Your task to perform on an android device: Go to wifi settings Image 0: 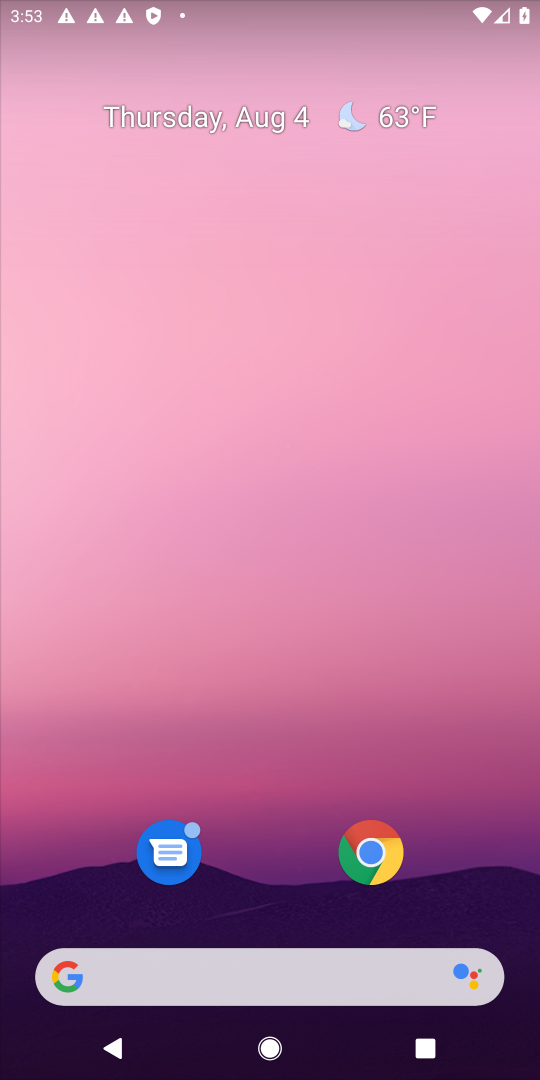
Step 0: drag from (271, 937) to (233, 85)
Your task to perform on an android device: Go to wifi settings Image 1: 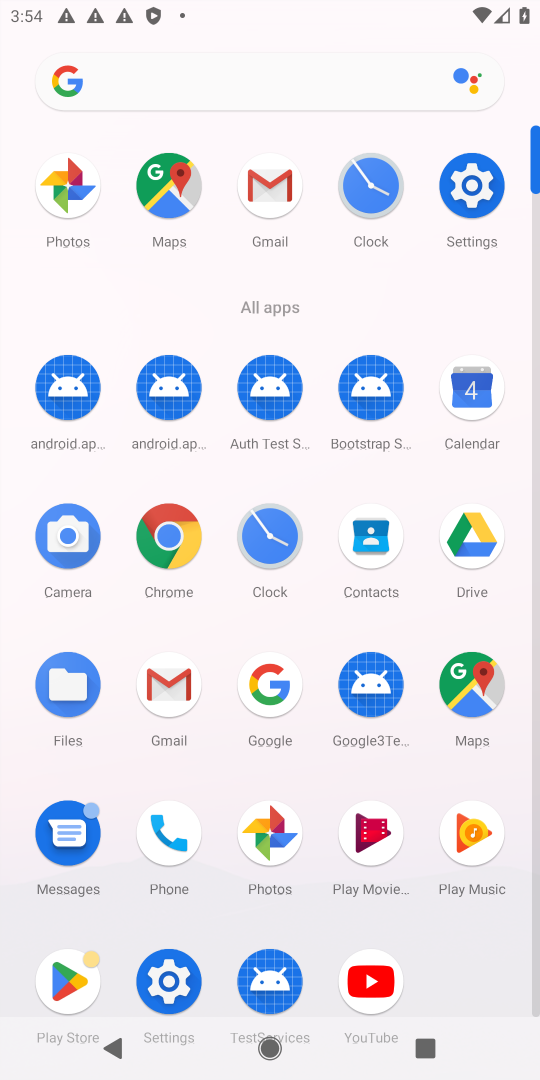
Step 1: click (482, 209)
Your task to perform on an android device: Go to wifi settings Image 2: 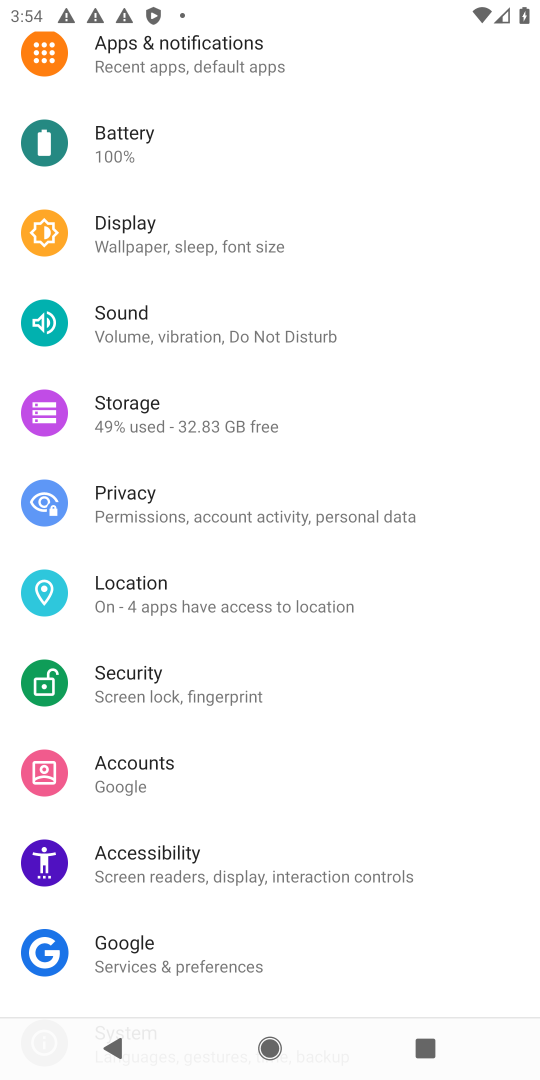
Step 2: drag from (185, 210) to (199, 727)
Your task to perform on an android device: Go to wifi settings Image 3: 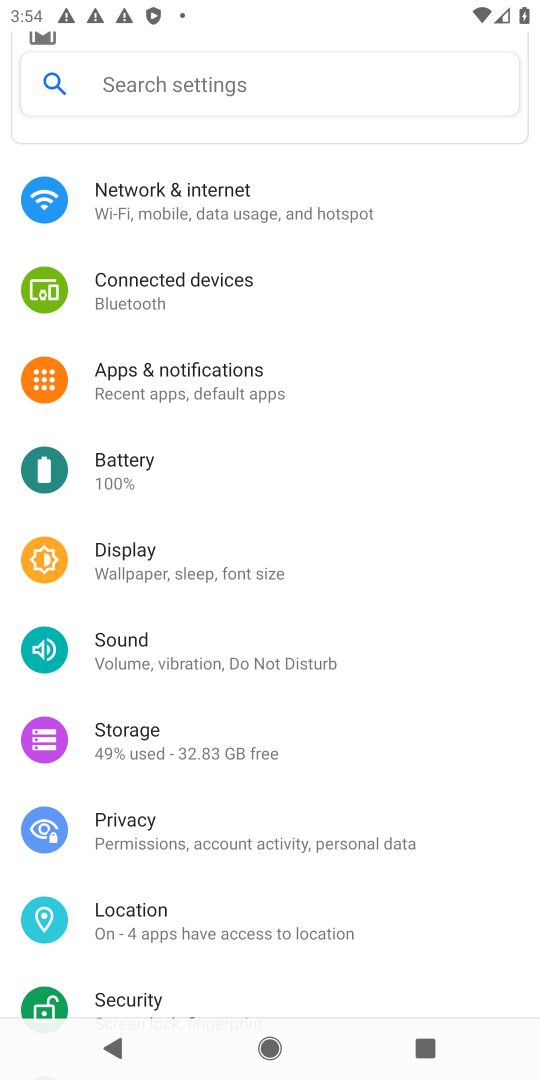
Step 3: click (178, 220)
Your task to perform on an android device: Go to wifi settings Image 4: 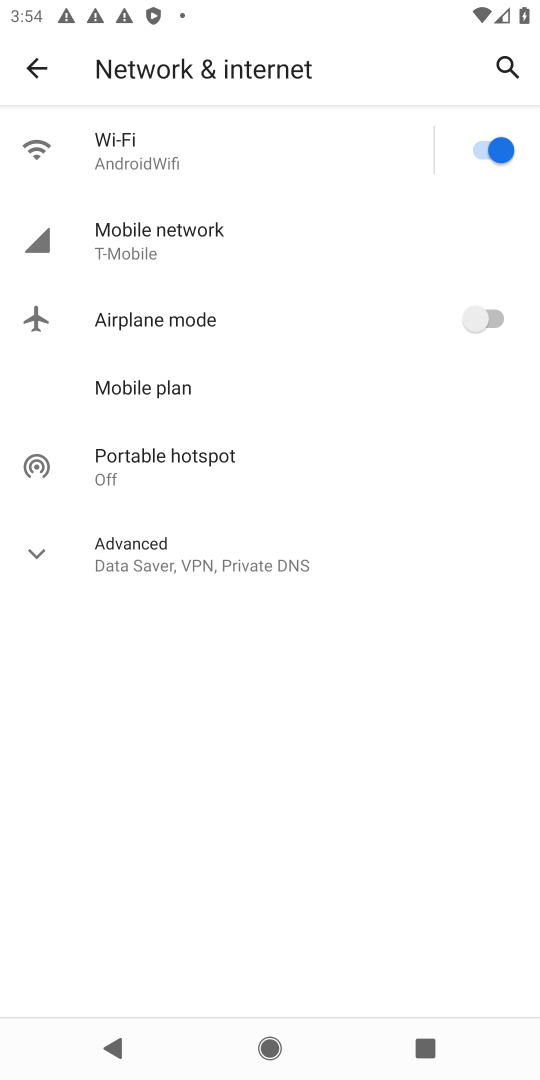
Step 4: click (134, 143)
Your task to perform on an android device: Go to wifi settings Image 5: 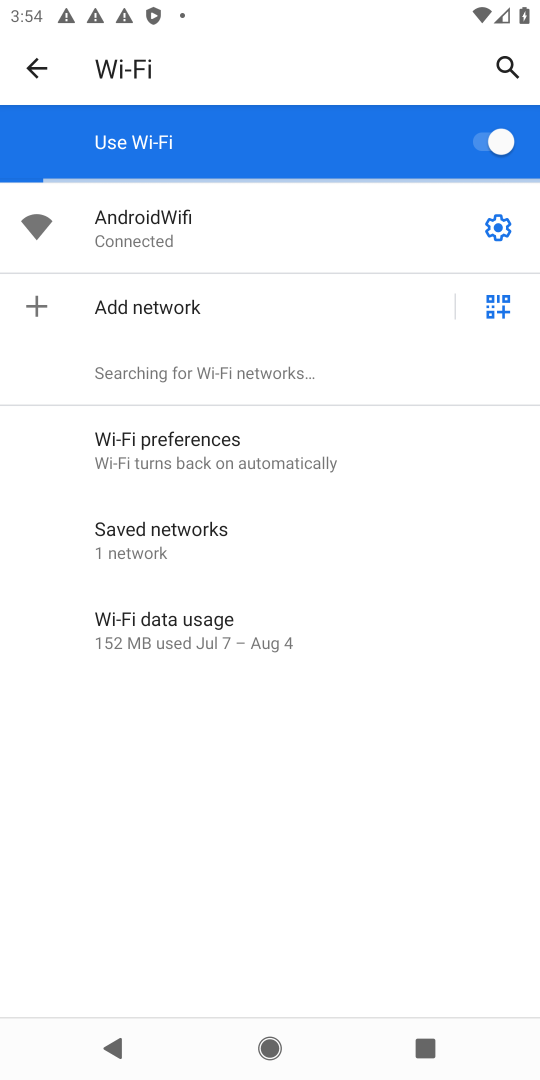
Step 5: task complete